Your task to perform on an android device: turn off sleep mode Image 0: 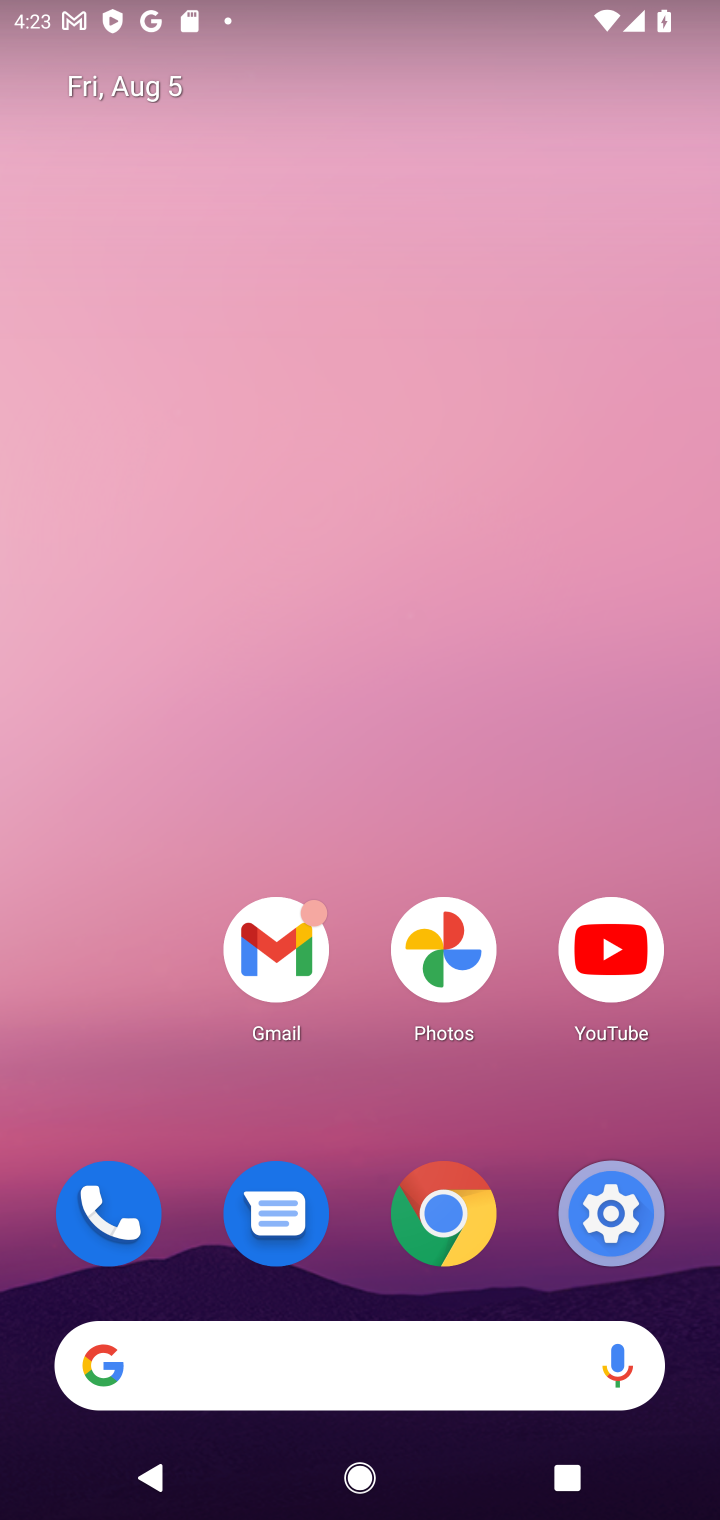
Step 0: click (605, 1242)
Your task to perform on an android device: turn off sleep mode Image 1: 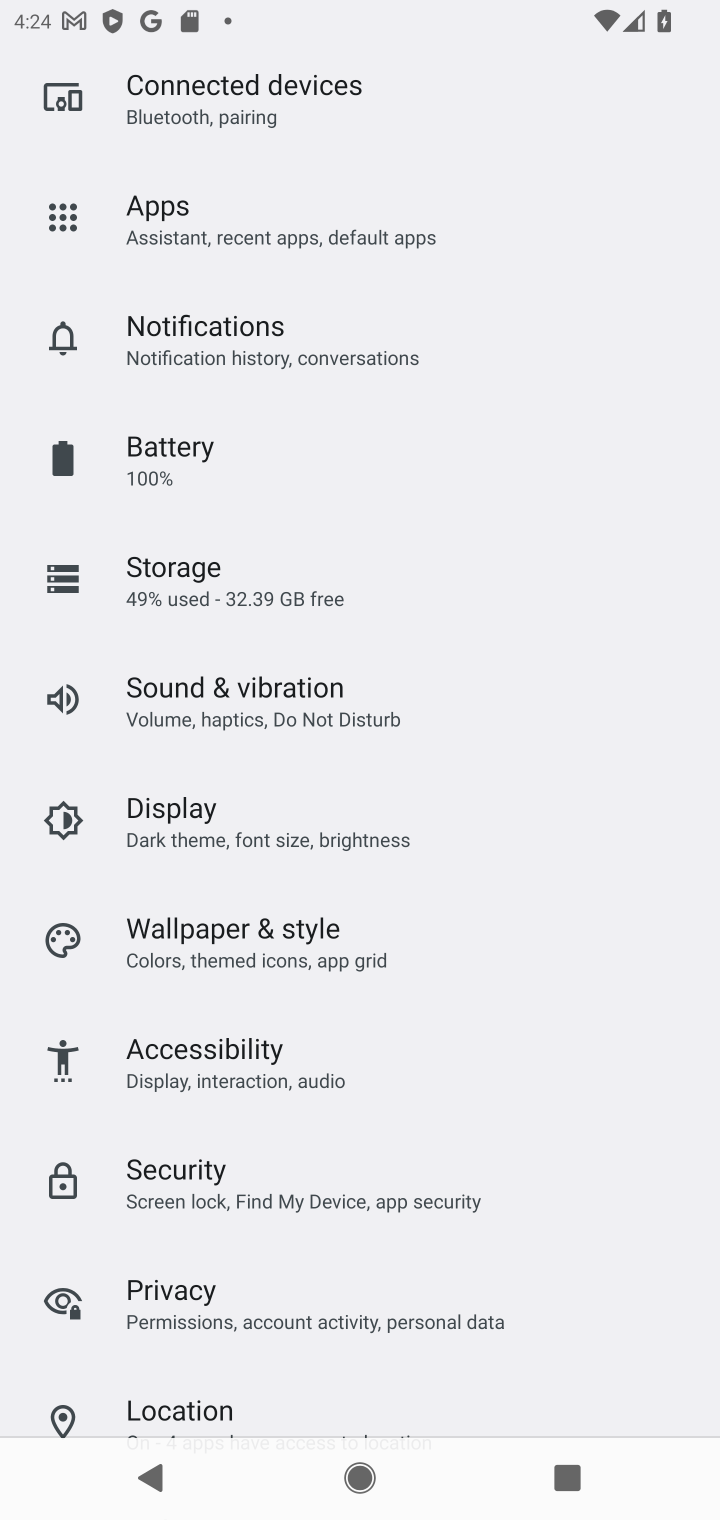
Step 1: task complete